Your task to perform on an android device: turn off smart reply in the gmail app Image 0: 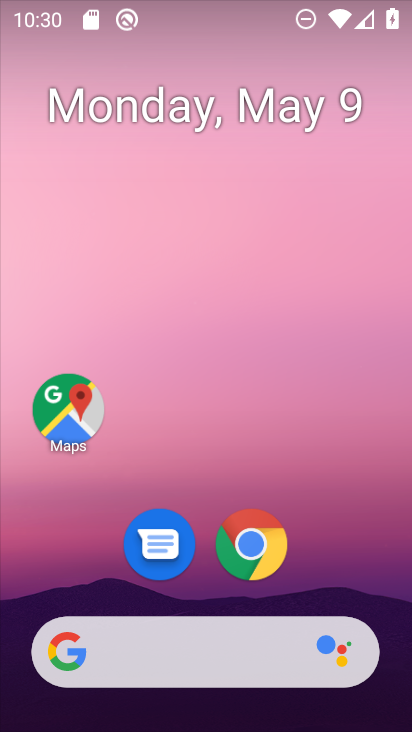
Step 0: drag from (327, 579) to (184, 122)
Your task to perform on an android device: turn off smart reply in the gmail app Image 1: 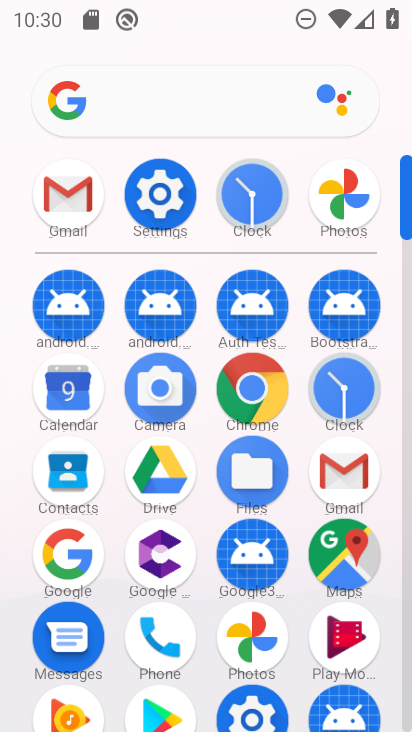
Step 1: click (67, 200)
Your task to perform on an android device: turn off smart reply in the gmail app Image 2: 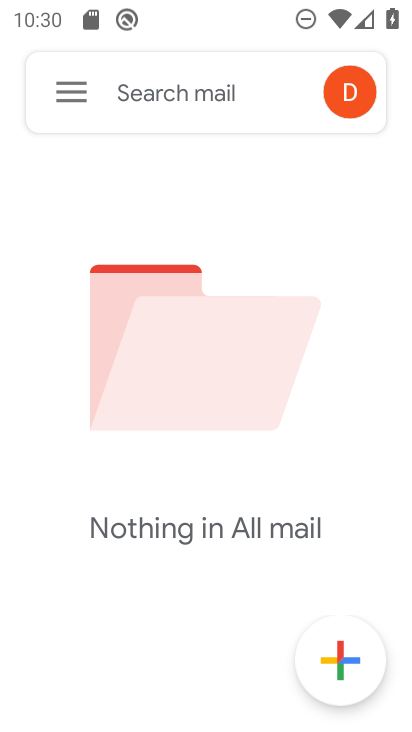
Step 2: click (78, 88)
Your task to perform on an android device: turn off smart reply in the gmail app Image 3: 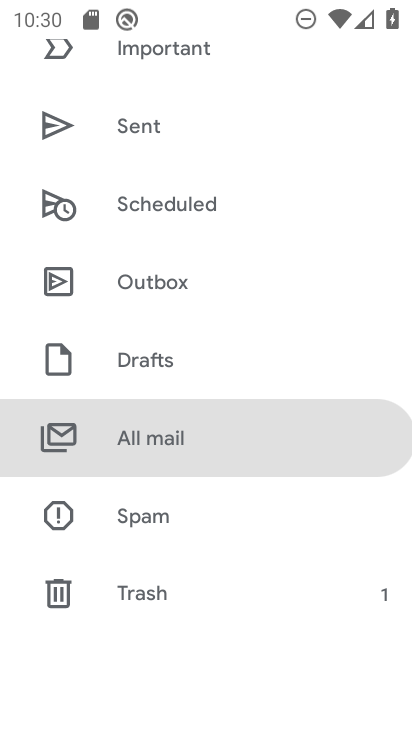
Step 3: drag from (231, 506) to (155, 44)
Your task to perform on an android device: turn off smart reply in the gmail app Image 4: 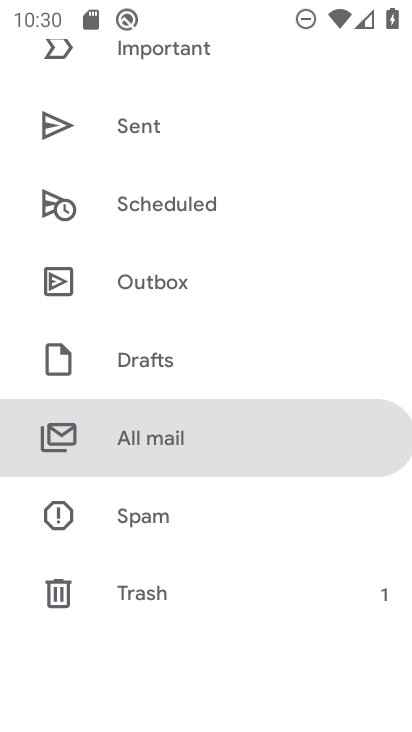
Step 4: drag from (245, 557) to (245, 70)
Your task to perform on an android device: turn off smart reply in the gmail app Image 5: 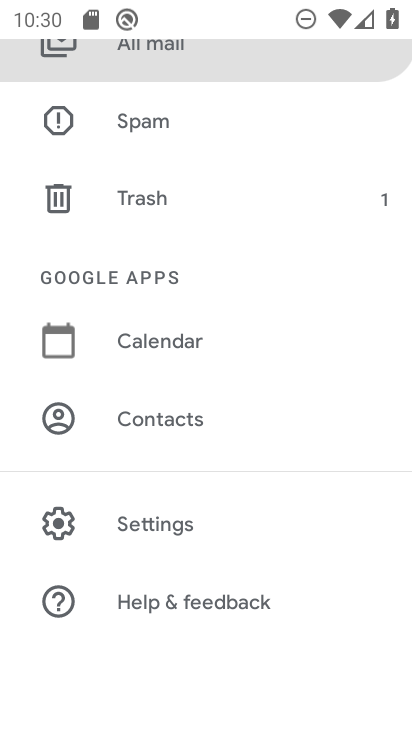
Step 5: click (168, 513)
Your task to perform on an android device: turn off smart reply in the gmail app Image 6: 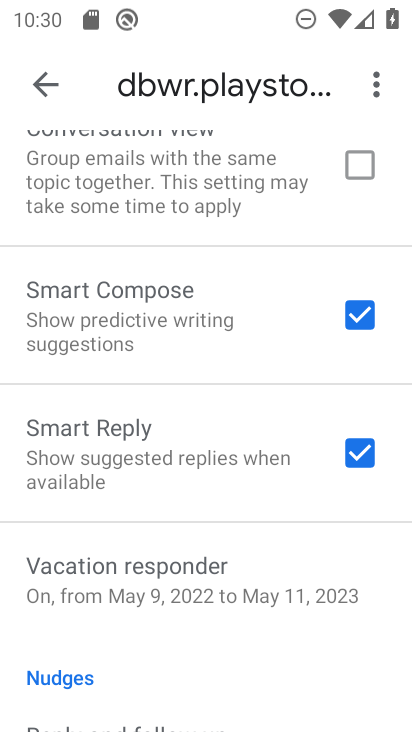
Step 6: click (355, 458)
Your task to perform on an android device: turn off smart reply in the gmail app Image 7: 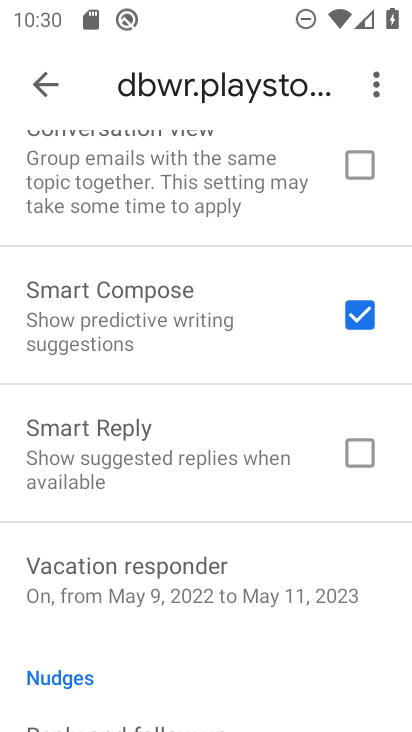
Step 7: task complete